Your task to perform on an android device: Open battery settings Image 0: 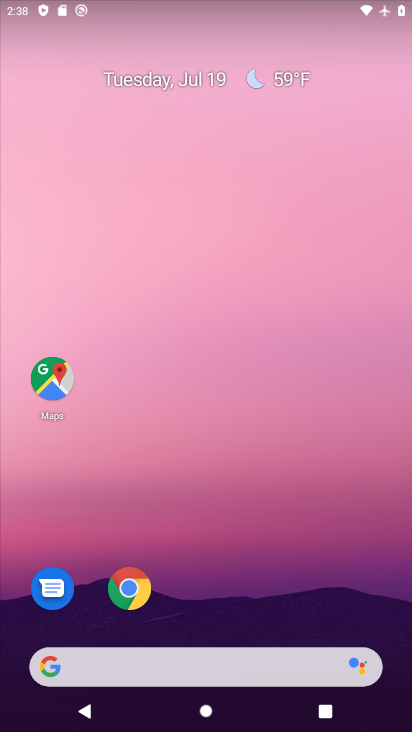
Step 0: press home button
Your task to perform on an android device: Open battery settings Image 1: 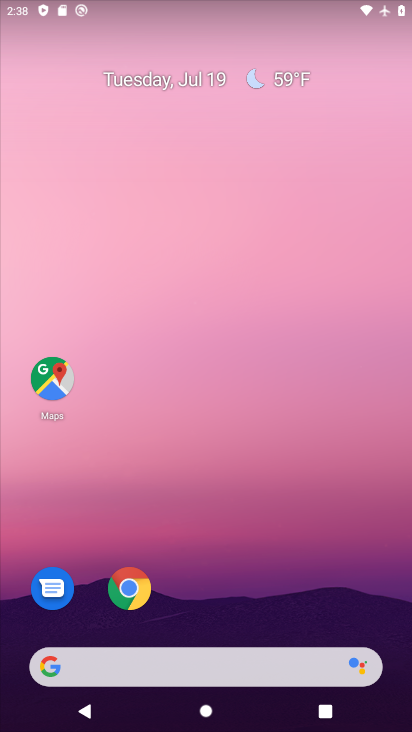
Step 1: drag from (208, 634) to (325, 222)
Your task to perform on an android device: Open battery settings Image 2: 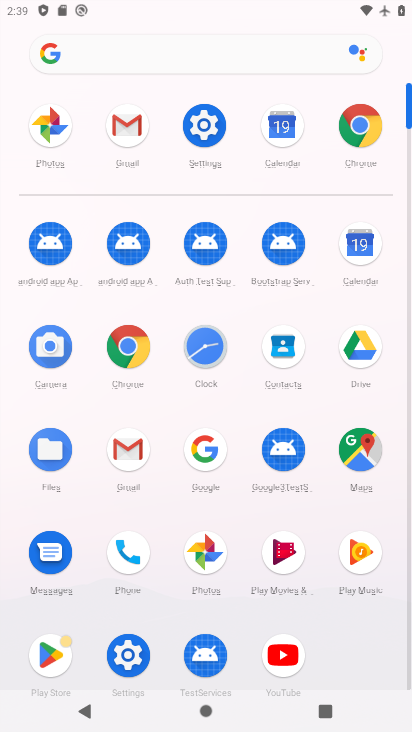
Step 2: click (213, 115)
Your task to perform on an android device: Open battery settings Image 3: 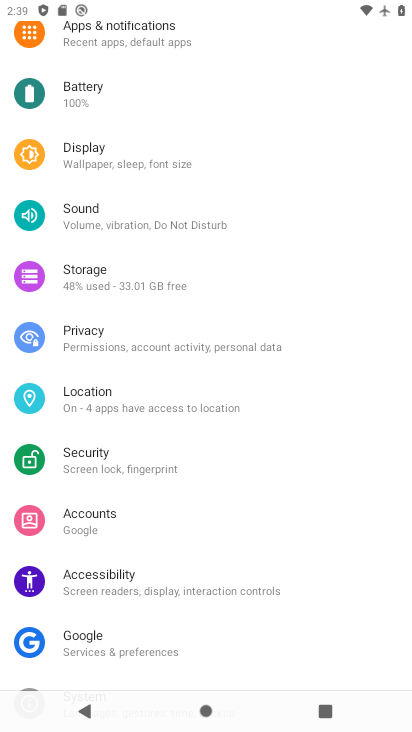
Step 3: click (88, 85)
Your task to perform on an android device: Open battery settings Image 4: 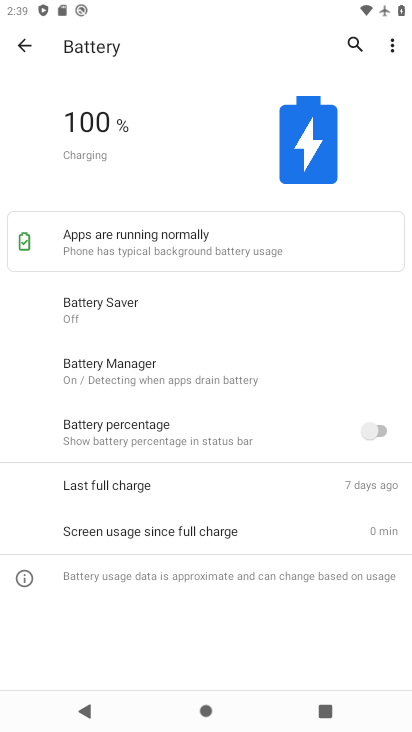
Step 4: task complete